Your task to perform on an android device: check battery use Image 0: 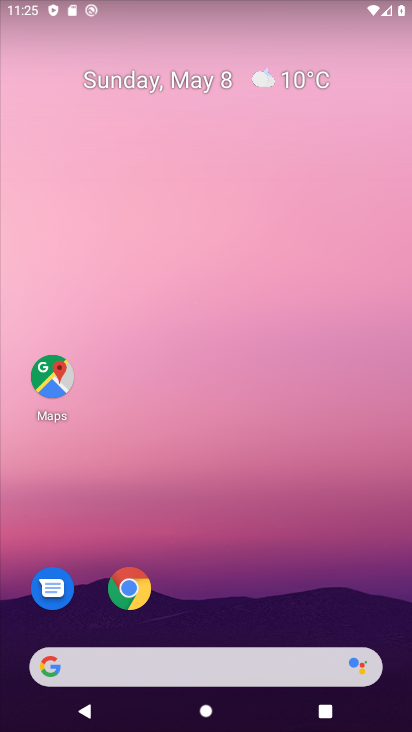
Step 0: drag from (254, 505) to (328, 36)
Your task to perform on an android device: check battery use Image 1: 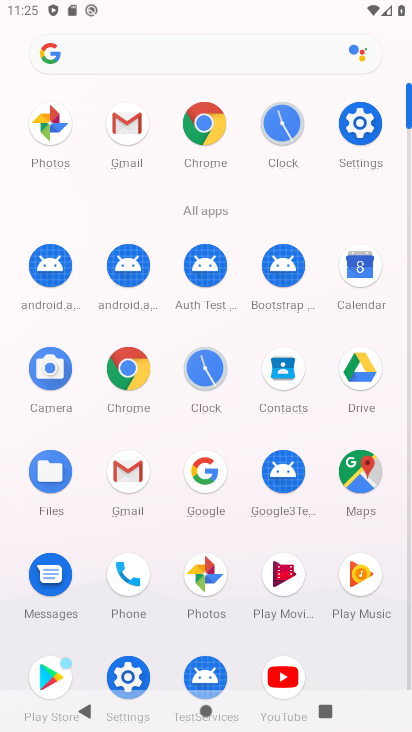
Step 1: click (364, 122)
Your task to perform on an android device: check battery use Image 2: 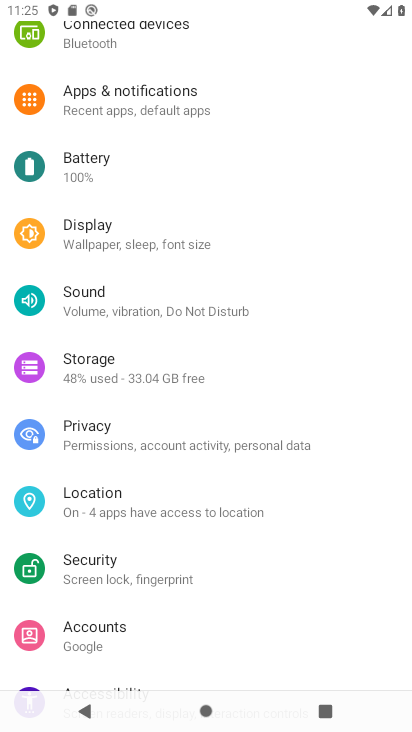
Step 2: click (112, 167)
Your task to perform on an android device: check battery use Image 3: 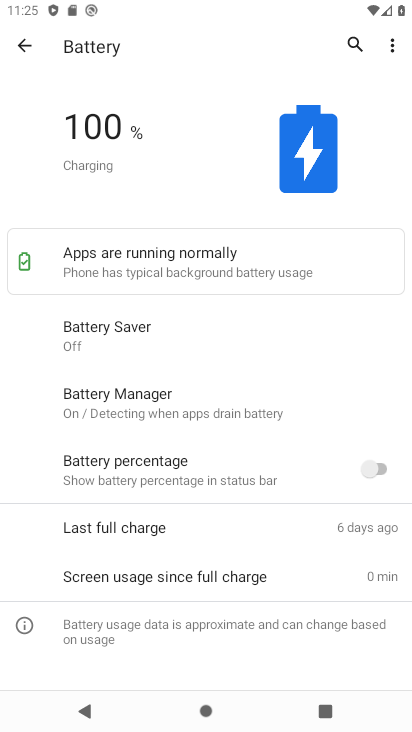
Step 3: drag from (192, 600) to (312, 108)
Your task to perform on an android device: check battery use Image 4: 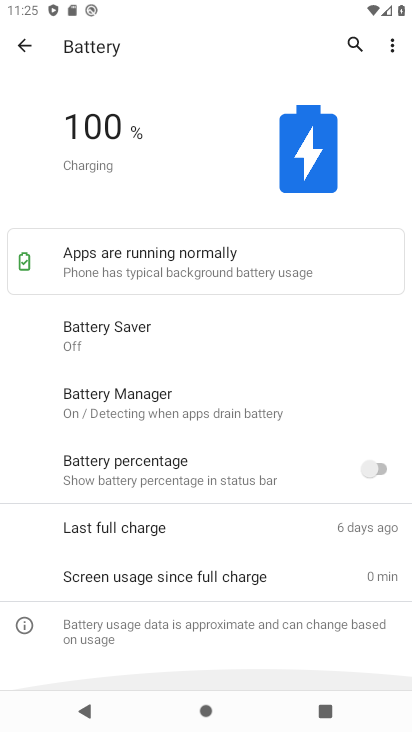
Step 4: click (397, 34)
Your task to perform on an android device: check battery use Image 5: 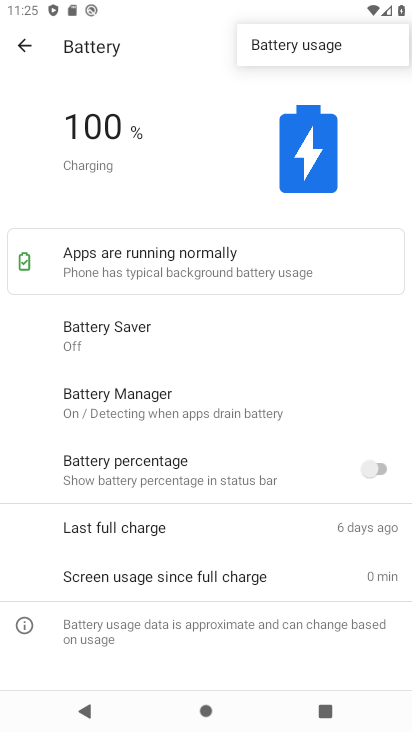
Step 5: click (304, 42)
Your task to perform on an android device: check battery use Image 6: 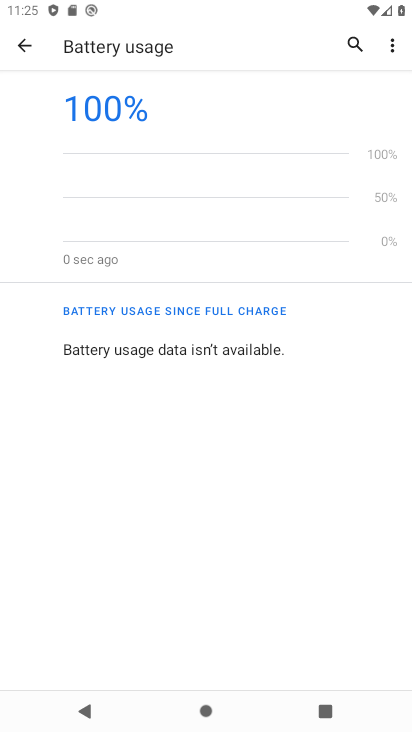
Step 6: task complete